Your task to perform on an android device: Check the weather Image 0: 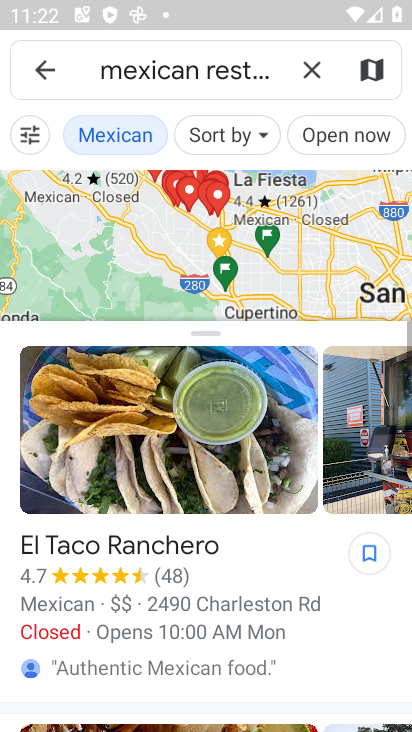
Step 0: press home button
Your task to perform on an android device: Check the weather Image 1: 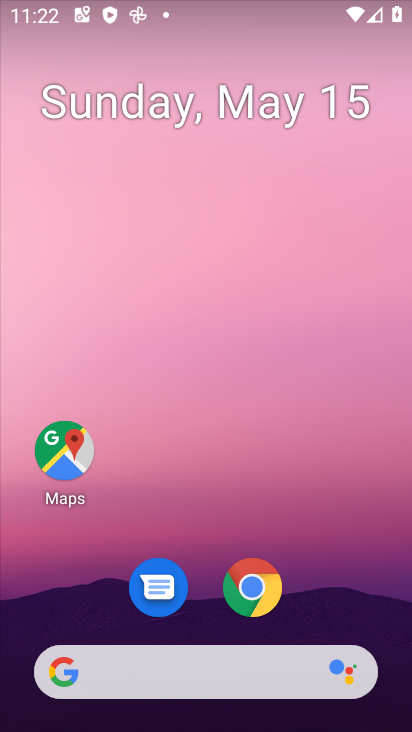
Step 1: drag from (400, 638) to (245, 80)
Your task to perform on an android device: Check the weather Image 2: 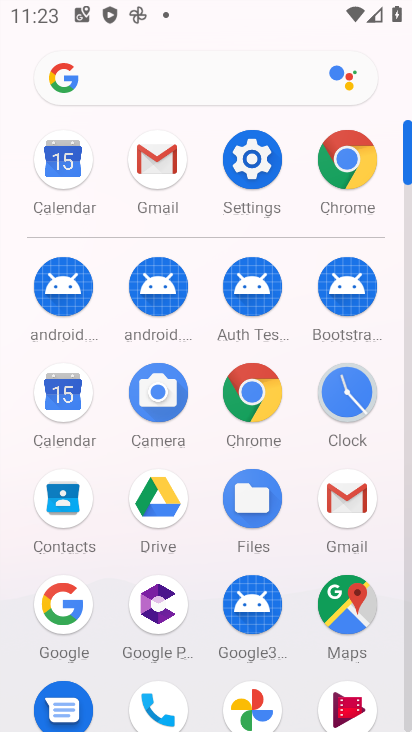
Step 2: click (49, 615)
Your task to perform on an android device: Check the weather Image 3: 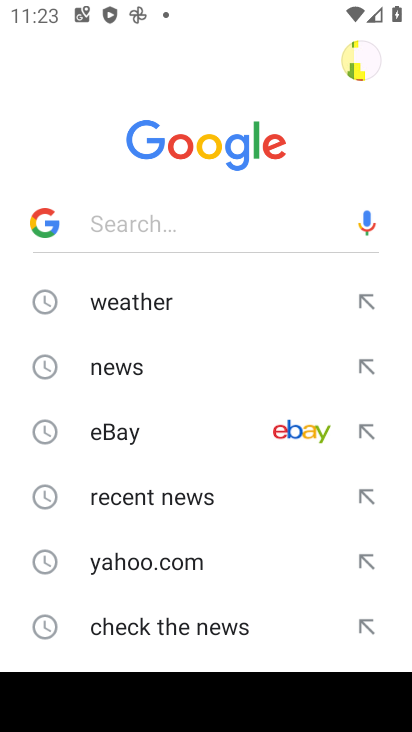
Step 3: click (166, 322)
Your task to perform on an android device: Check the weather Image 4: 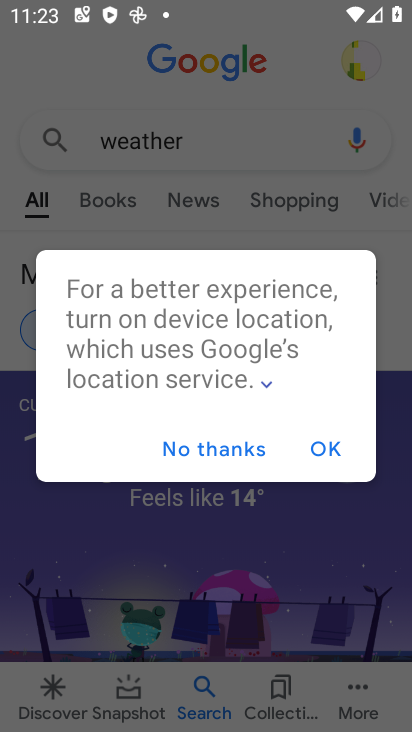
Step 4: click (197, 462)
Your task to perform on an android device: Check the weather Image 5: 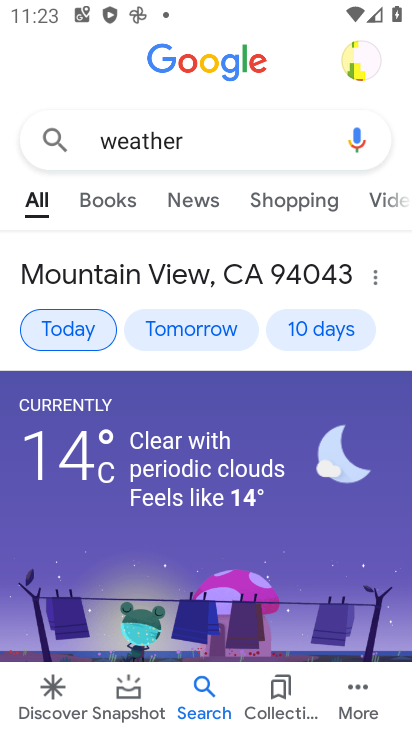
Step 5: task complete